Your task to perform on an android device: open chrome and create a bookmark for the current page Image 0: 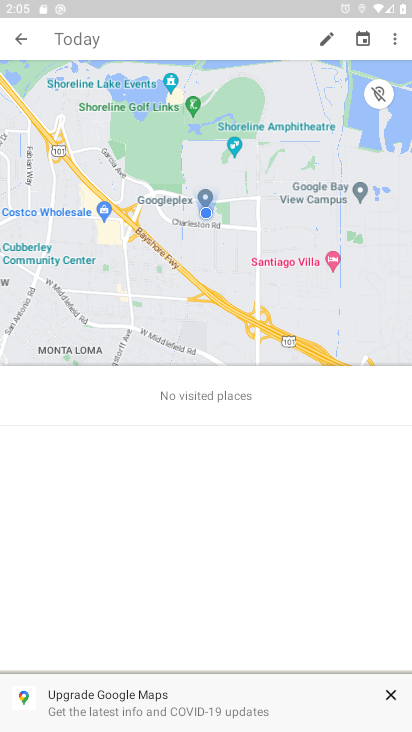
Step 0: press home button
Your task to perform on an android device: open chrome and create a bookmark for the current page Image 1: 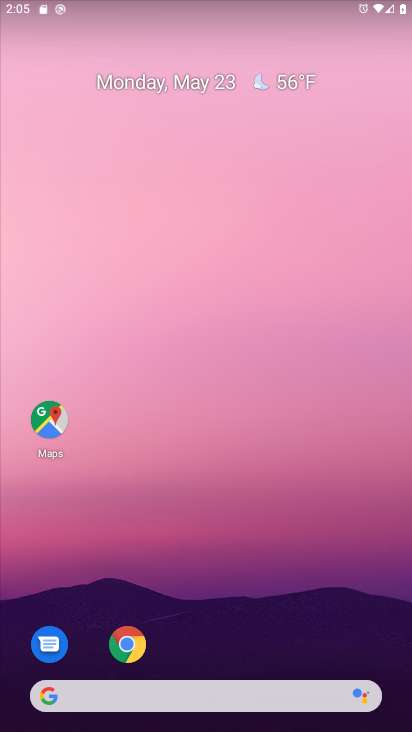
Step 1: drag from (200, 649) to (213, 30)
Your task to perform on an android device: open chrome and create a bookmark for the current page Image 2: 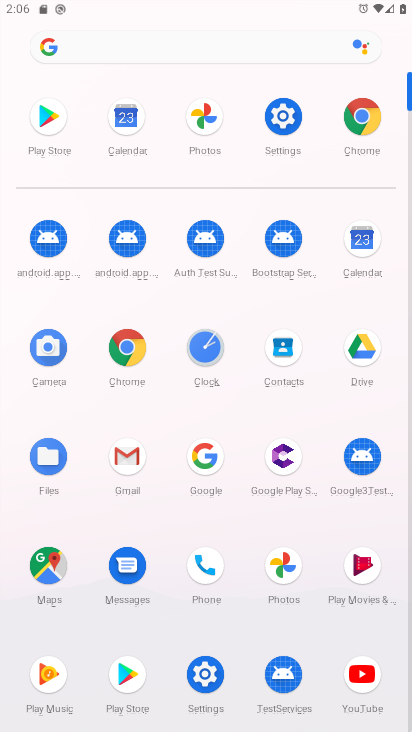
Step 2: click (116, 378)
Your task to perform on an android device: open chrome and create a bookmark for the current page Image 3: 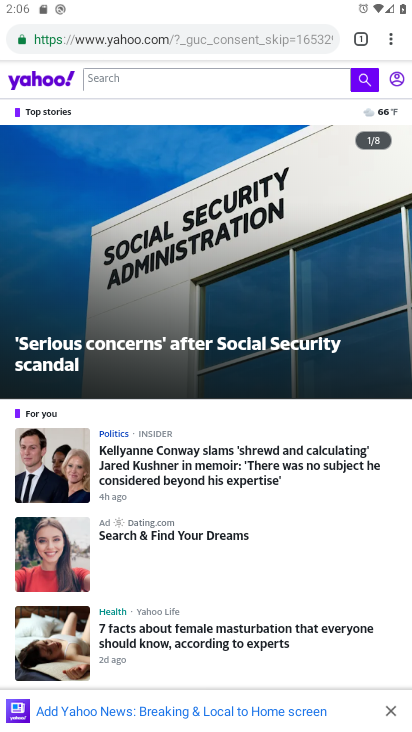
Step 3: click (389, 46)
Your task to perform on an android device: open chrome and create a bookmark for the current page Image 4: 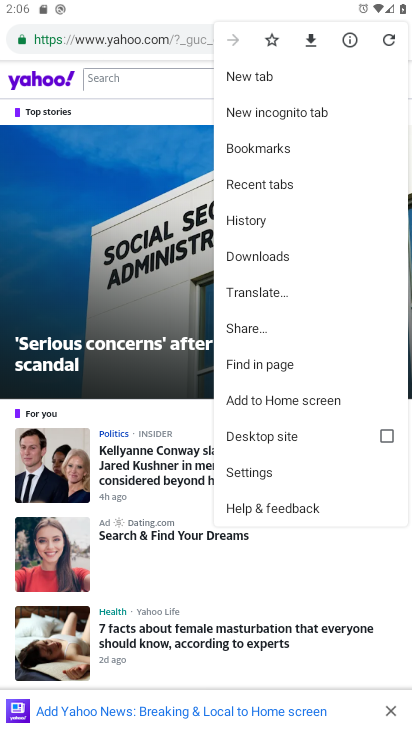
Step 4: click (267, 30)
Your task to perform on an android device: open chrome and create a bookmark for the current page Image 5: 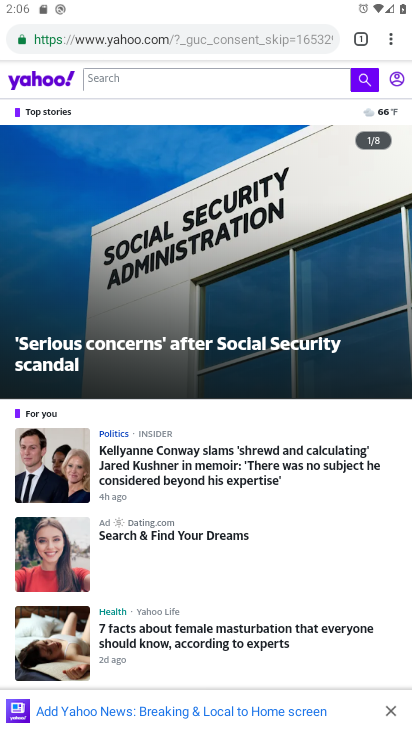
Step 5: task complete